Your task to perform on an android device: turn off location history Image 0: 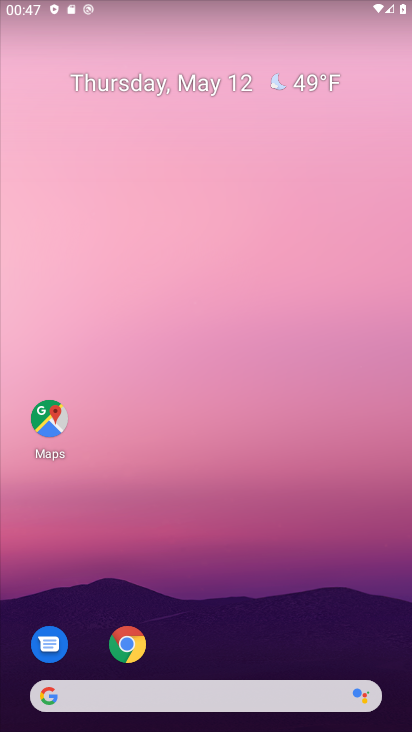
Step 0: drag from (230, 603) to (144, 159)
Your task to perform on an android device: turn off location history Image 1: 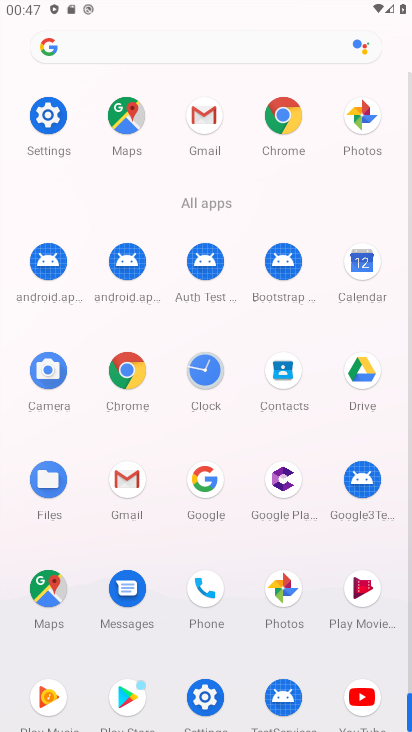
Step 1: click (44, 116)
Your task to perform on an android device: turn off location history Image 2: 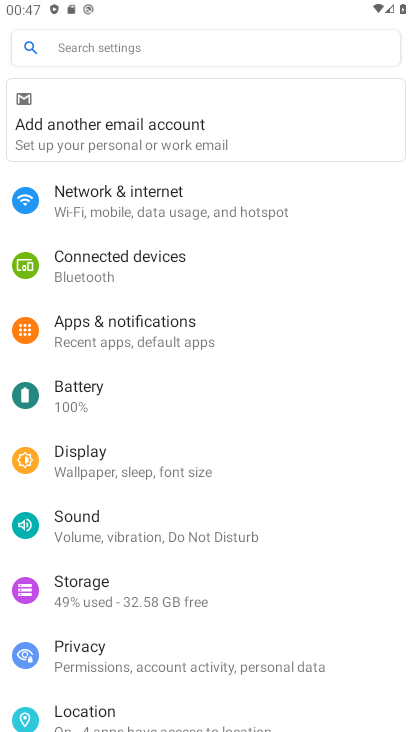
Step 2: click (83, 707)
Your task to perform on an android device: turn off location history Image 3: 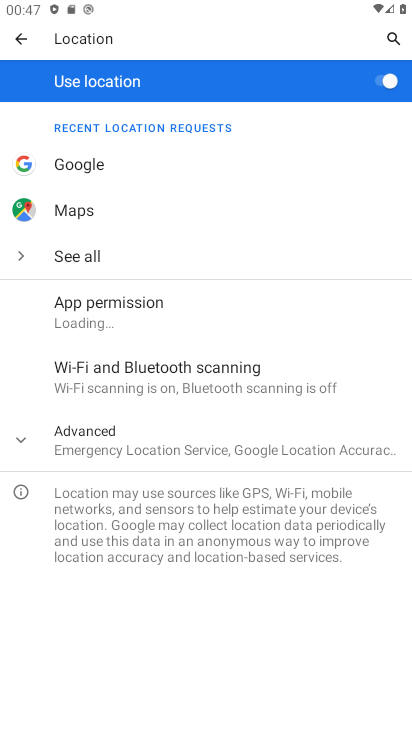
Step 3: click (35, 430)
Your task to perform on an android device: turn off location history Image 4: 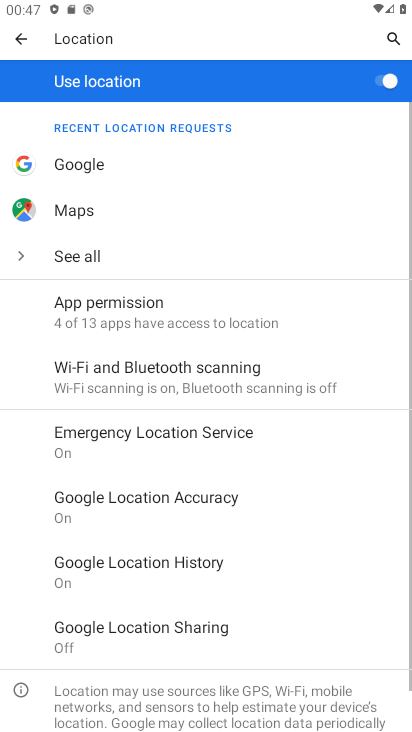
Step 4: drag from (166, 457) to (153, 233)
Your task to perform on an android device: turn off location history Image 5: 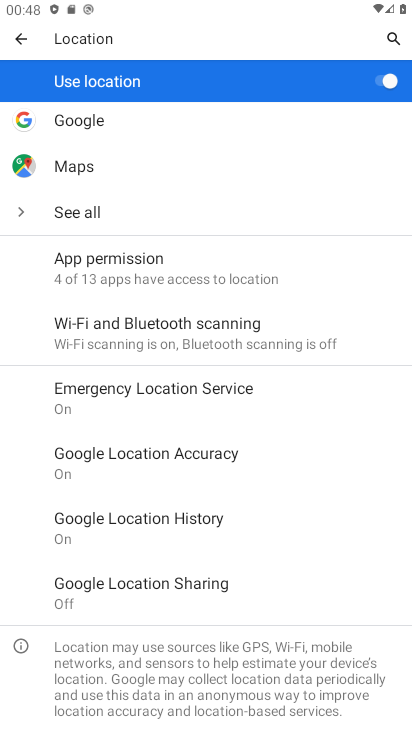
Step 5: click (160, 520)
Your task to perform on an android device: turn off location history Image 6: 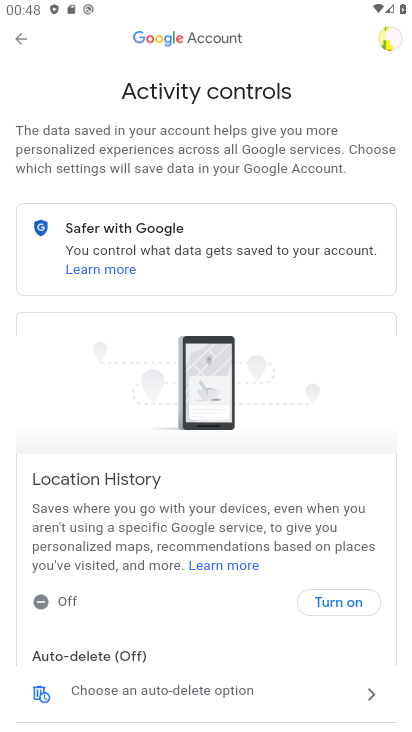
Step 6: task complete